Your task to perform on an android device: turn pop-ups on in chrome Image 0: 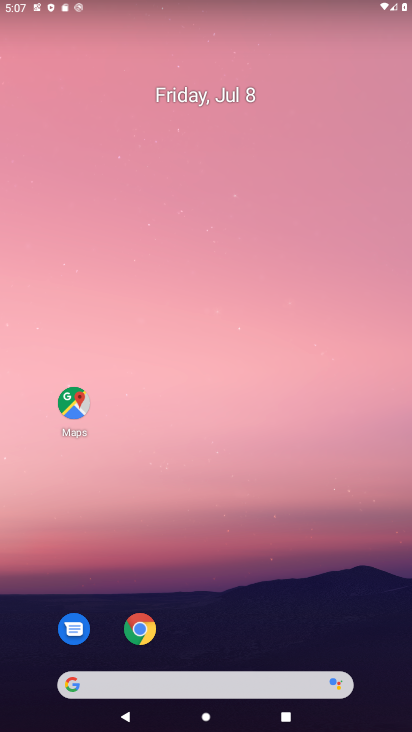
Step 0: press home button
Your task to perform on an android device: turn pop-ups on in chrome Image 1: 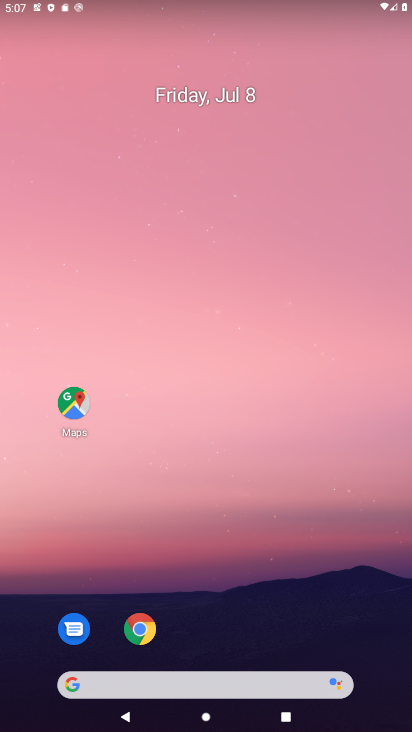
Step 1: click (139, 634)
Your task to perform on an android device: turn pop-ups on in chrome Image 2: 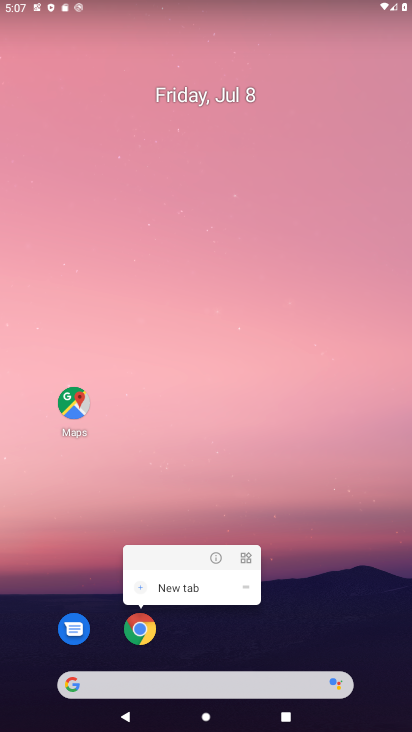
Step 2: click (307, 626)
Your task to perform on an android device: turn pop-ups on in chrome Image 3: 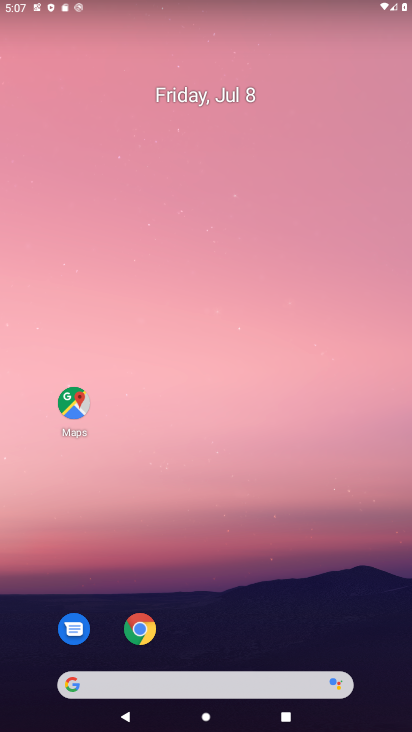
Step 3: drag from (293, 634) to (306, 178)
Your task to perform on an android device: turn pop-ups on in chrome Image 4: 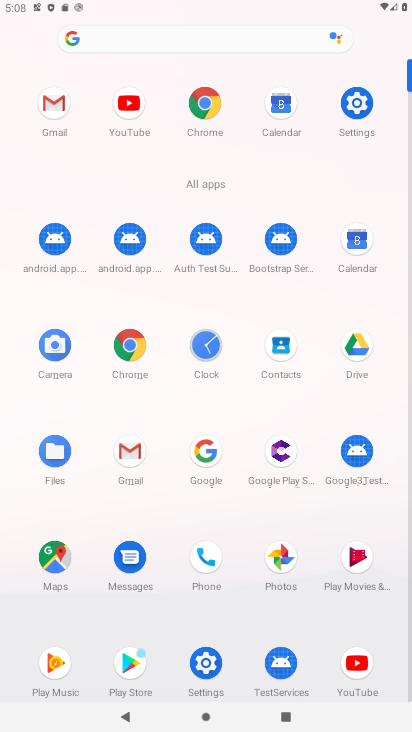
Step 4: click (201, 96)
Your task to perform on an android device: turn pop-ups on in chrome Image 5: 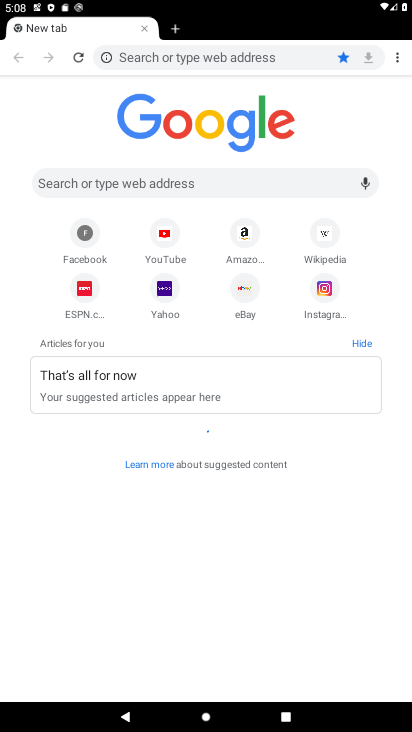
Step 5: drag from (397, 61) to (285, 256)
Your task to perform on an android device: turn pop-ups on in chrome Image 6: 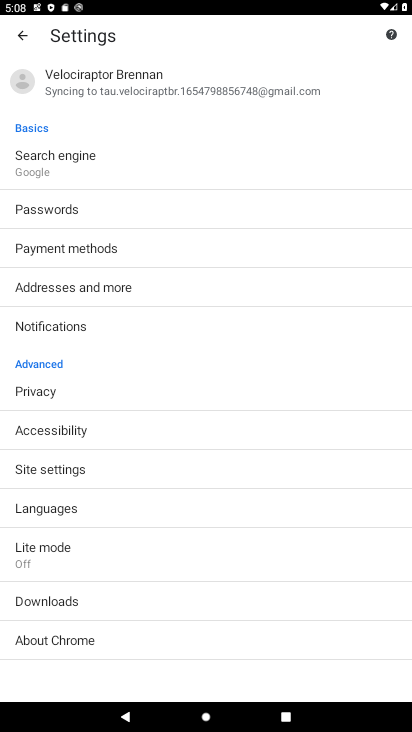
Step 6: click (50, 470)
Your task to perform on an android device: turn pop-ups on in chrome Image 7: 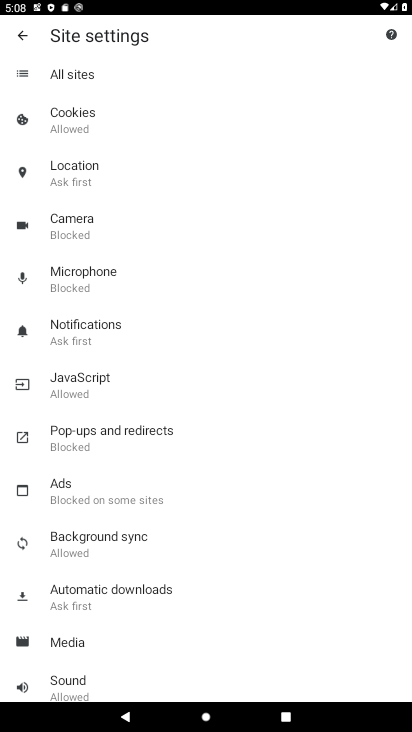
Step 7: click (97, 434)
Your task to perform on an android device: turn pop-ups on in chrome Image 8: 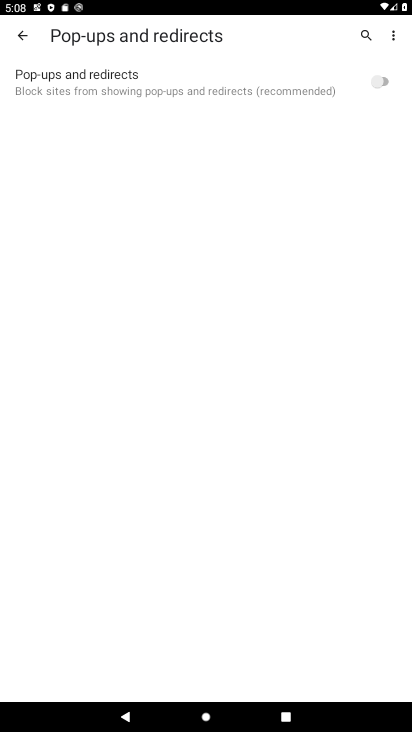
Step 8: click (378, 77)
Your task to perform on an android device: turn pop-ups on in chrome Image 9: 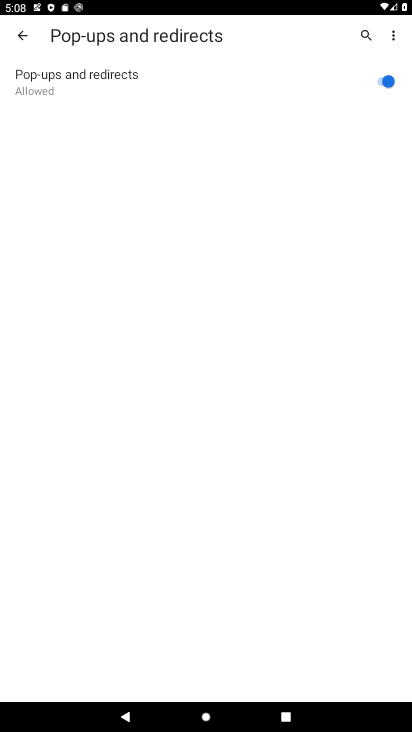
Step 9: task complete